Your task to perform on an android device: Do I have any events this weekend? Image 0: 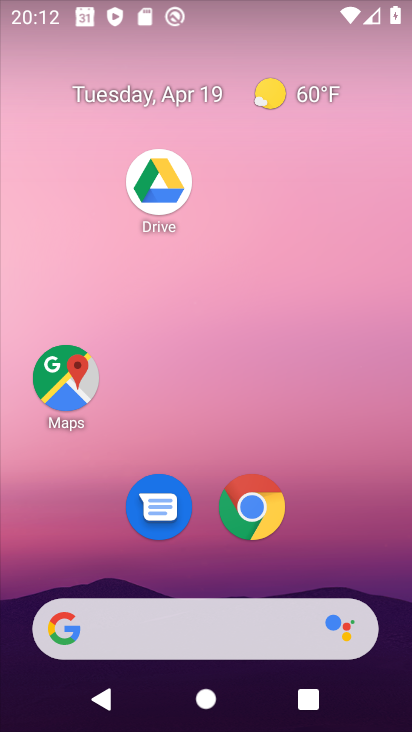
Step 0: drag from (331, 498) to (309, 98)
Your task to perform on an android device: Do I have any events this weekend? Image 1: 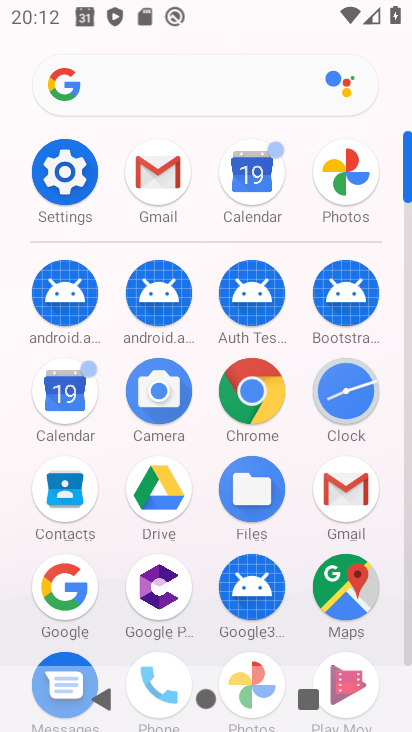
Step 1: click (261, 169)
Your task to perform on an android device: Do I have any events this weekend? Image 2: 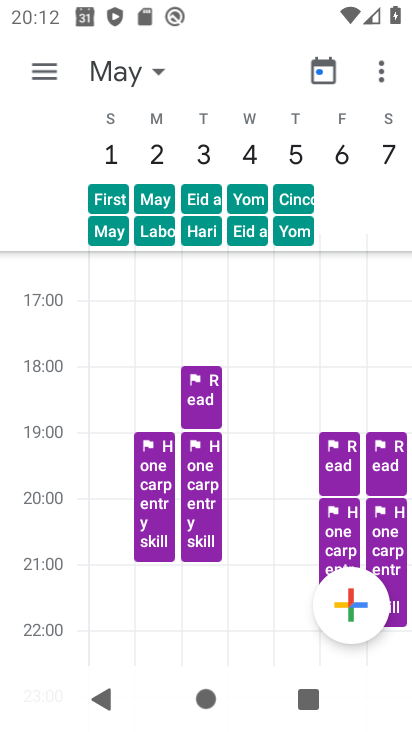
Step 2: drag from (110, 327) to (383, 341)
Your task to perform on an android device: Do I have any events this weekend? Image 3: 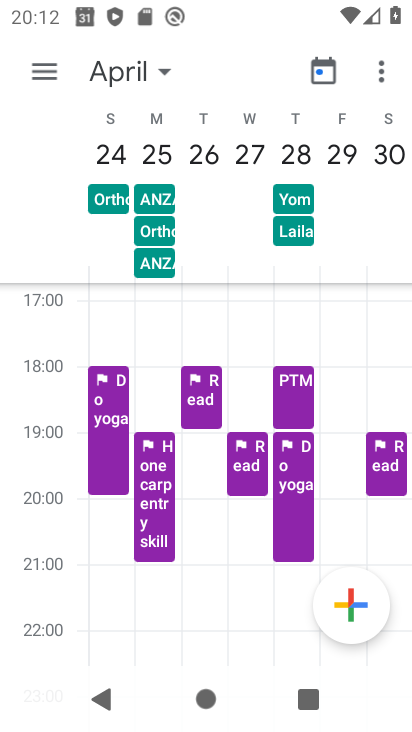
Step 3: drag from (108, 329) to (404, 376)
Your task to perform on an android device: Do I have any events this weekend? Image 4: 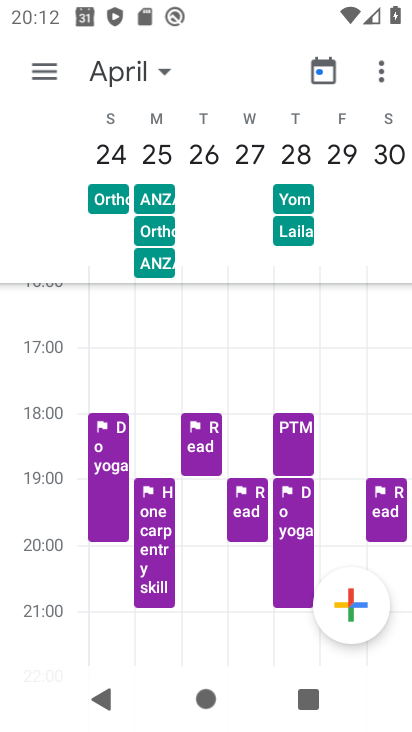
Step 4: drag from (109, 310) to (407, 378)
Your task to perform on an android device: Do I have any events this weekend? Image 5: 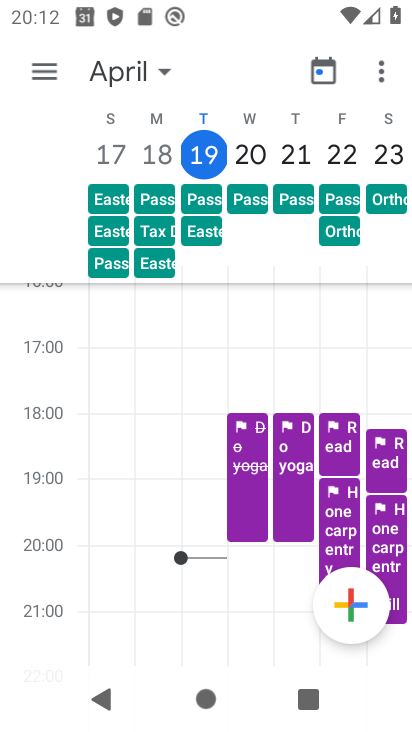
Step 5: drag from (380, 307) to (411, 512)
Your task to perform on an android device: Do I have any events this weekend? Image 6: 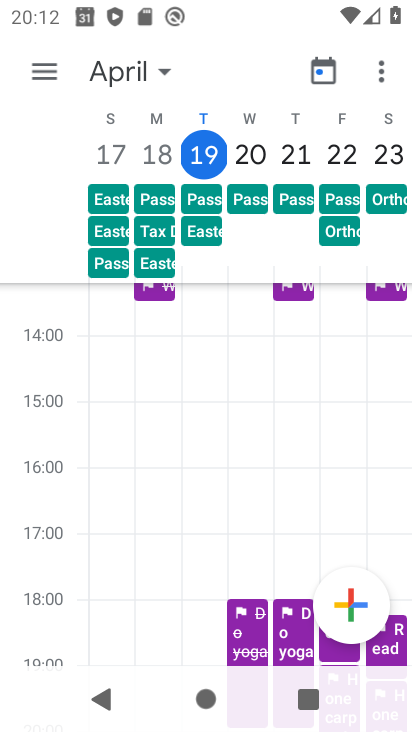
Step 6: drag from (371, 366) to (409, 486)
Your task to perform on an android device: Do I have any events this weekend? Image 7: 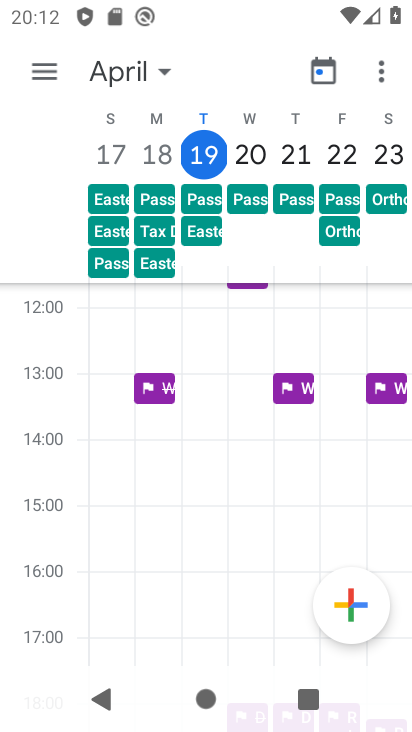
Step 7: drag from (330, 295) to (373, 519)
Your task to perform on an android device: Do I have any events this weekend? Image 8: 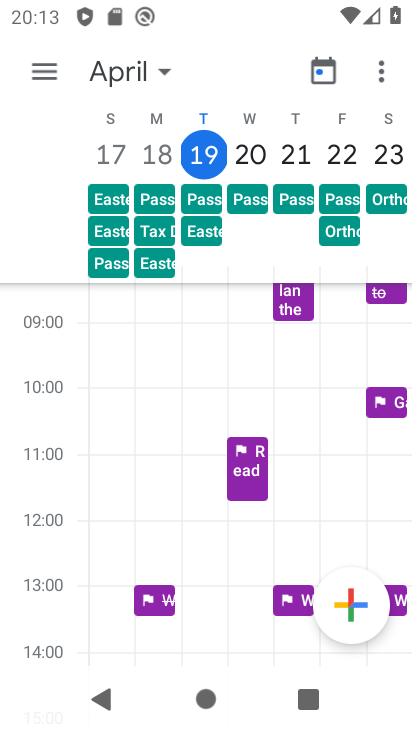
Step 8: drag from (332, 320) to (354, 514)
Your task to perform on an android device: Do I have any events this weekend? Image 9: 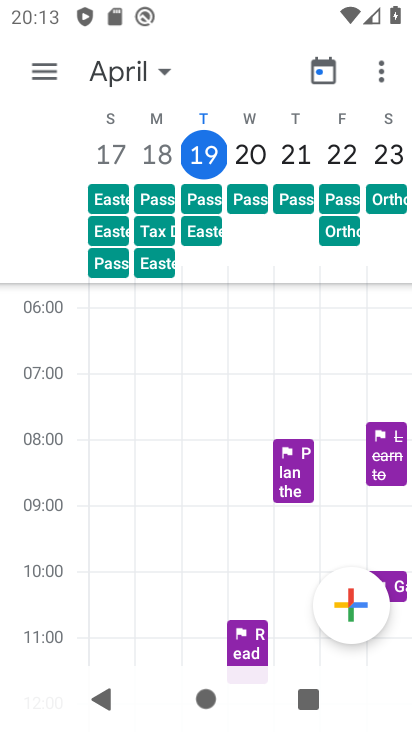
Step 9: drag from (340, 454) to (323, 326)
Your task to perform on an android device: Do I have any events this weekend? Image 10: 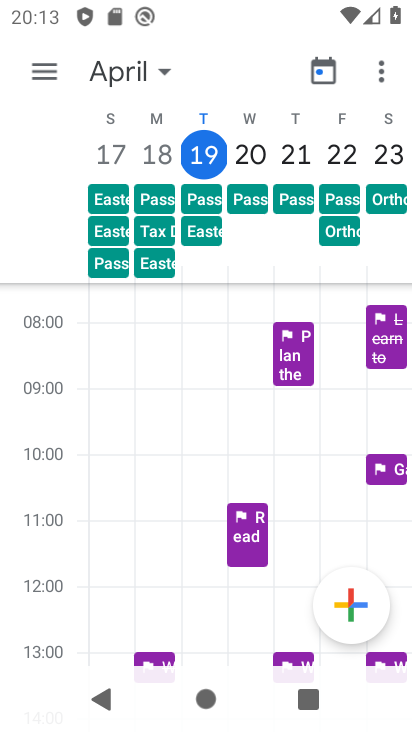
Step 10: click (392, 469)
Your task to perform on an android device: Do I have any events this weekend? Image 11: 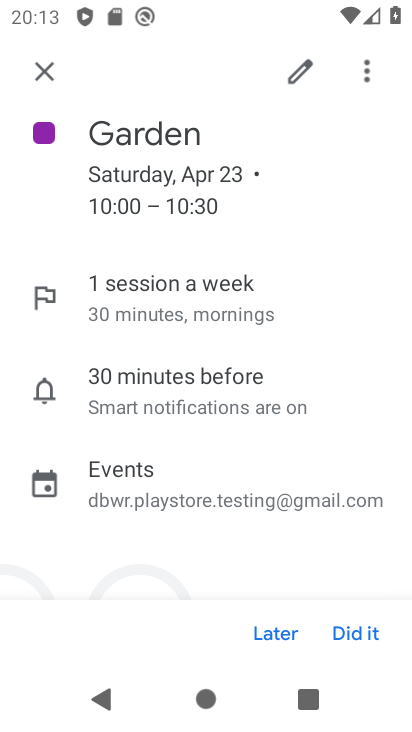
Step 11: task complete